Your task to perform on an android device: Turn off the flashlight Image 0: 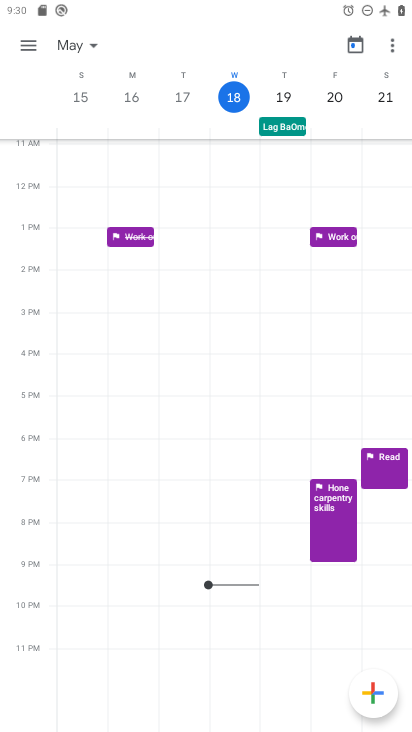
Step 0: press home button
Your task to perform on an android device: Turn off the flashlight Image 1: 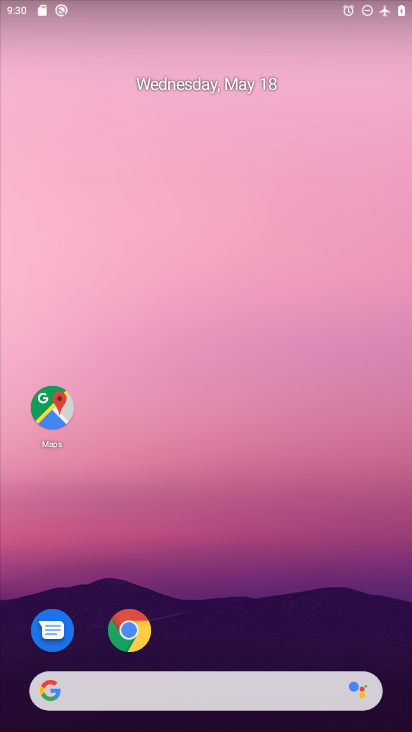
Step 1: drag from (199, 676) to (175, 2)
Your task to perform on an android device: Turn off the flashlight Image 2: 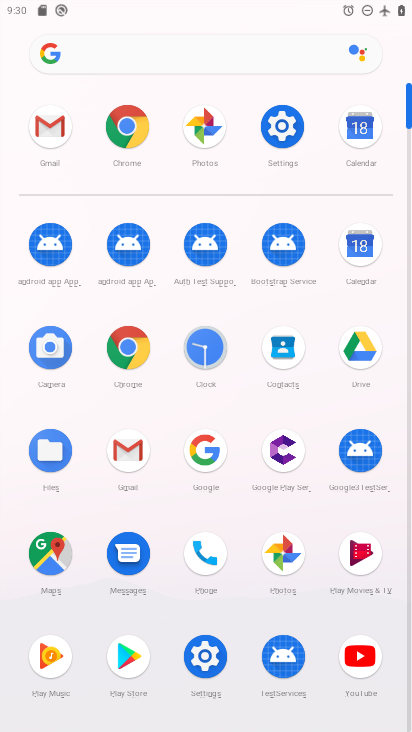
Step 2: click (277, 123)
Your task to perform on an android device: Turn off the flashlight Image 3: 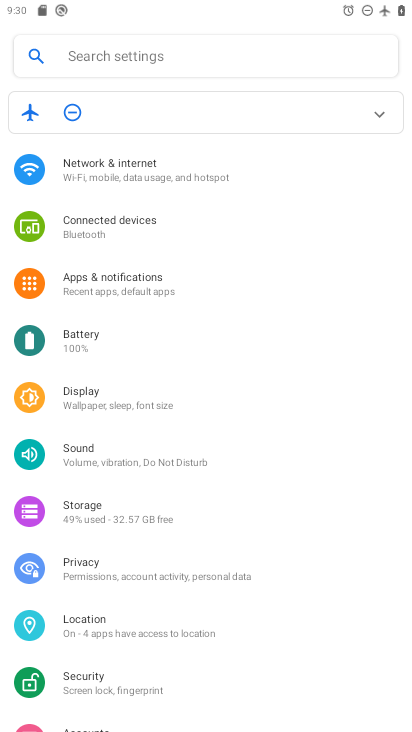
Step 3: task complete